Your task to perform on an android device: Search for pizza restaurants on Maps Image 0: 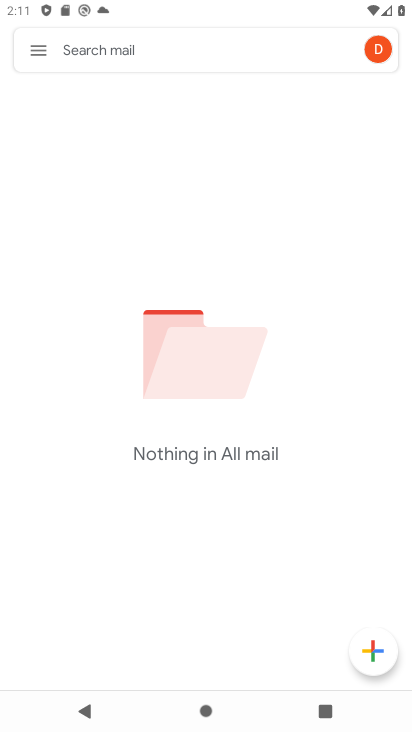
Step 0: press home button
Your task to perform on an android device: Search for pizza restaurants on Maps Image 1: 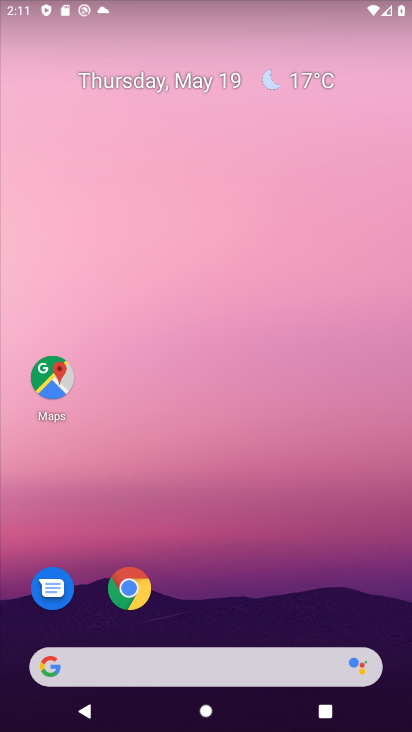
Step 1: click (48, 381)
Your task to perform on an android device: Search for pizza restaurants on Maps Image 2: 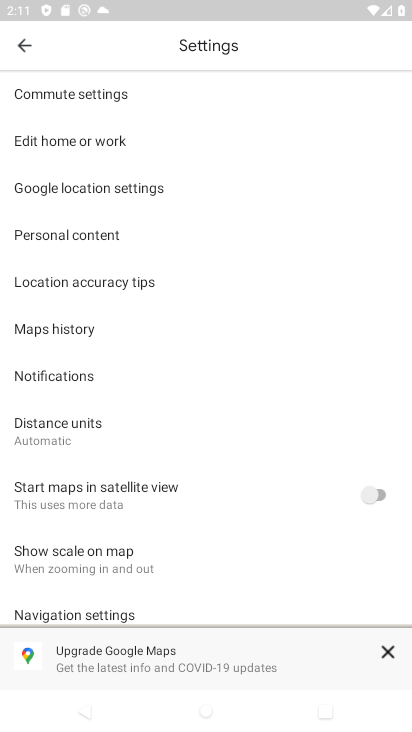
Step 2: click (29, 43)
Your task to perform on an android device: Search for pizza restaurants on Maps Image 3: 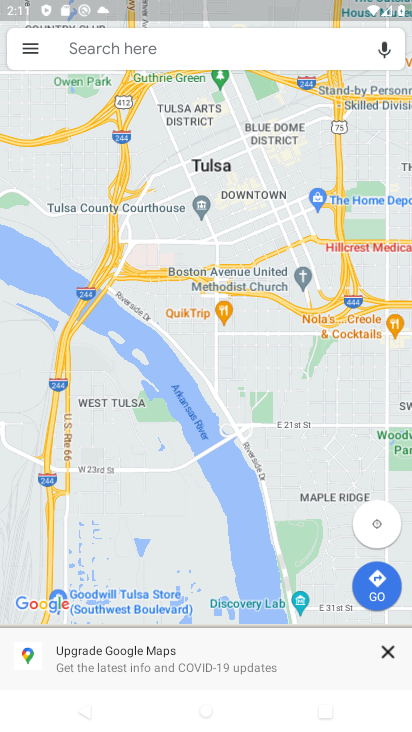
Step 3: click (204, 56)
Your task to perform on an android device: Search for pizza restaurants on Maps Image 4: 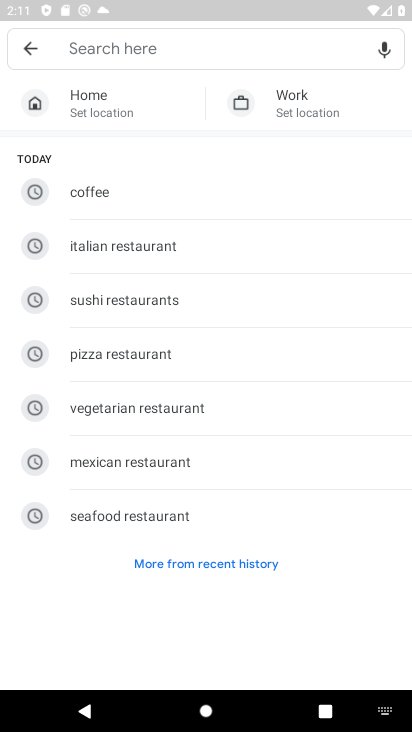
Step 4: type "pizza restaurants"
Your task to perform on an android device: Search for pizza restaurants on Maps Image 5: 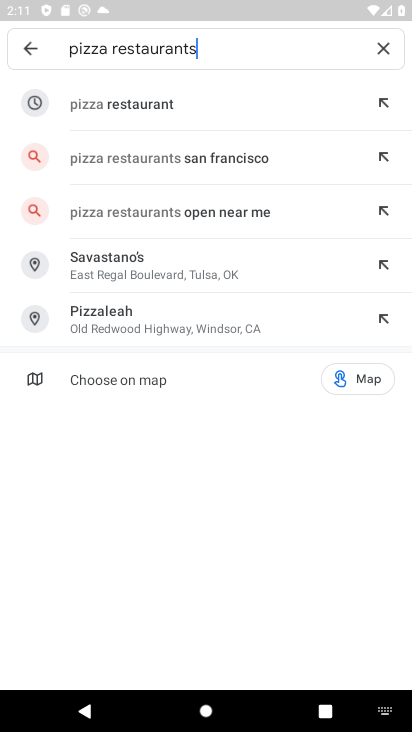
Step 5: press enter
Your task to perform on an android device: Search for pizza restaurants on Maps Image 6: 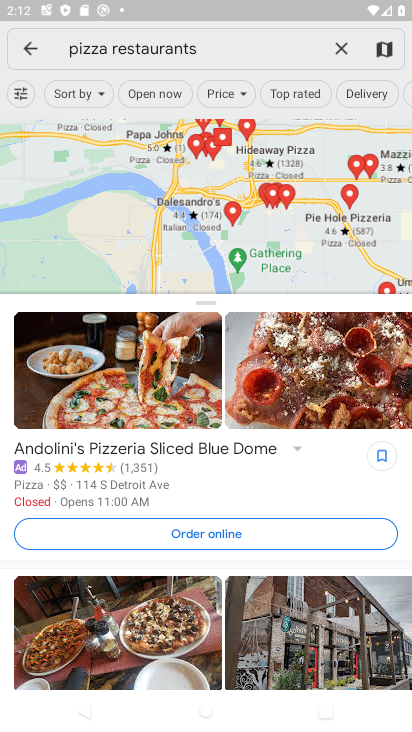
Step 6: task complete